Your task to perform on an android device: Go to calendar. Show me events next week Image 0: 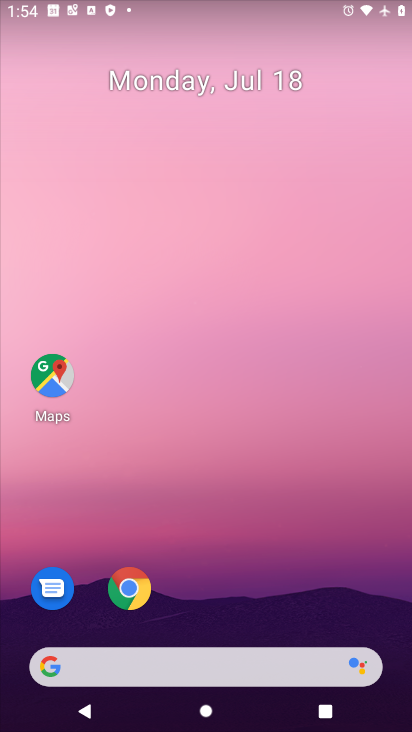
Step 0: drag from (247, 612) to (268, 47)
Your task to perform on an android device: Go to calendar. Show me events next week Image 1: 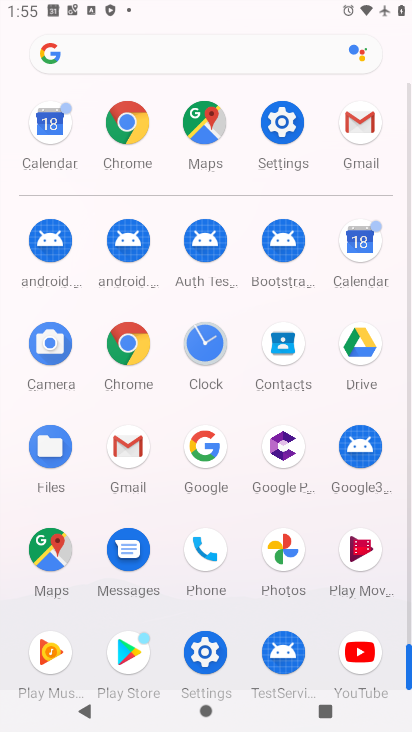
Step 1: click (337, 240)
Your task to perform on an android device: Go to calendar. Show me events next week Image 2: 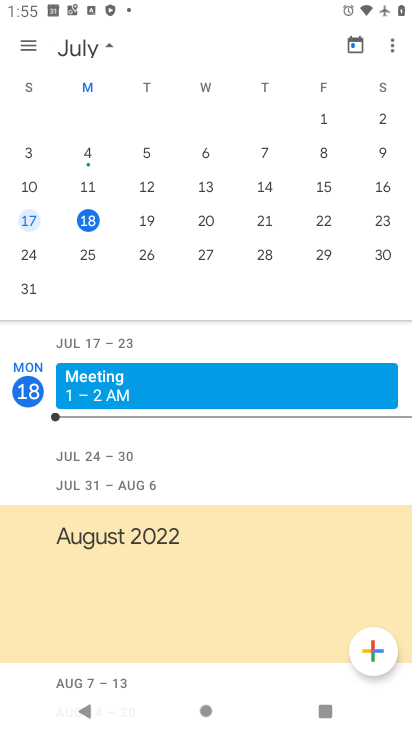
Step 2: click (20, 261)
Your task to perform on an android device: Go to calendar. Show me events next week Image 3: 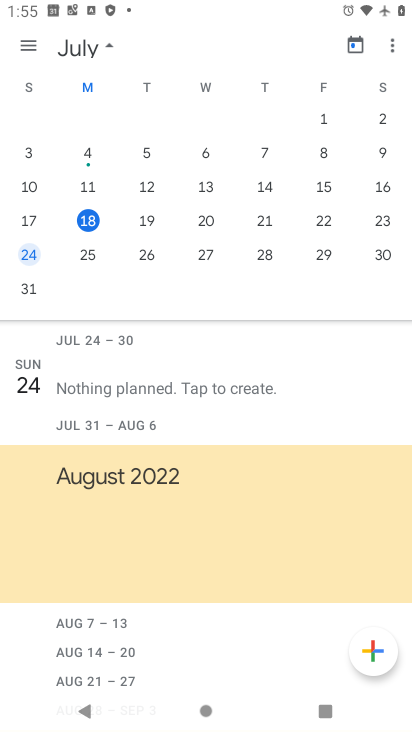
Step 3: task complete